Your task to perform on an android device: Open Google Chrome Image 0: 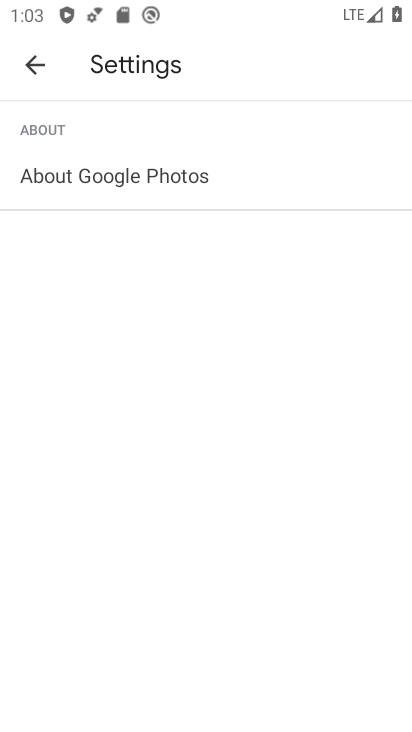
Step 0: press home button
Your task to perform on an android device: Open Google Chrome Image 1: 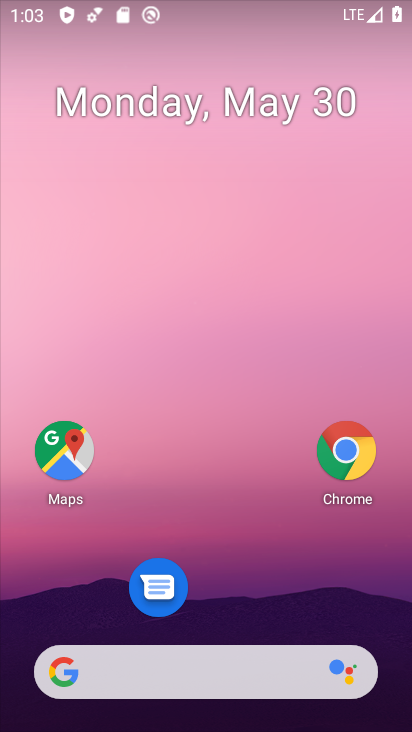
Step 1: click (354, 455)
Your task to perform on an android device: Open Google Chrome Image 2: 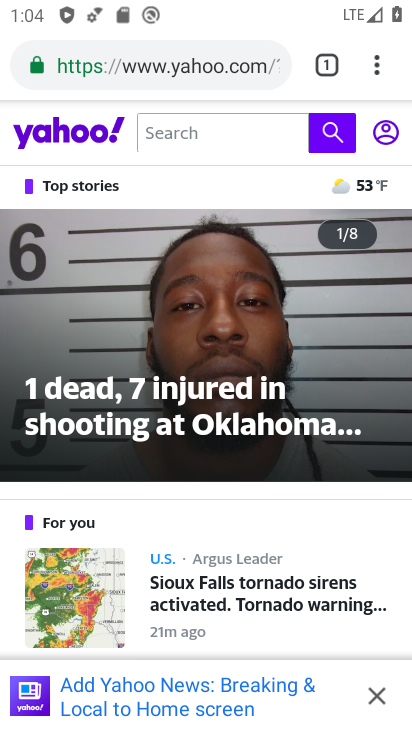
Step 2: task complete